Your task to perform on an android device: Check the weather Image 0: 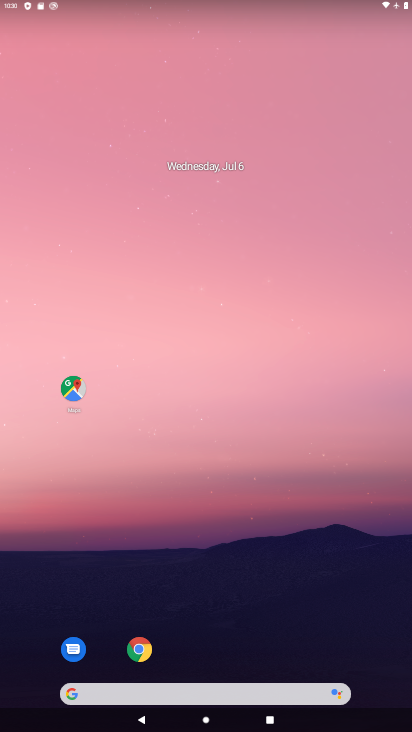
Step 0: drag from (90, 270) to (391, 251)
Your task to perform on an android device: Check the weather Image 1: 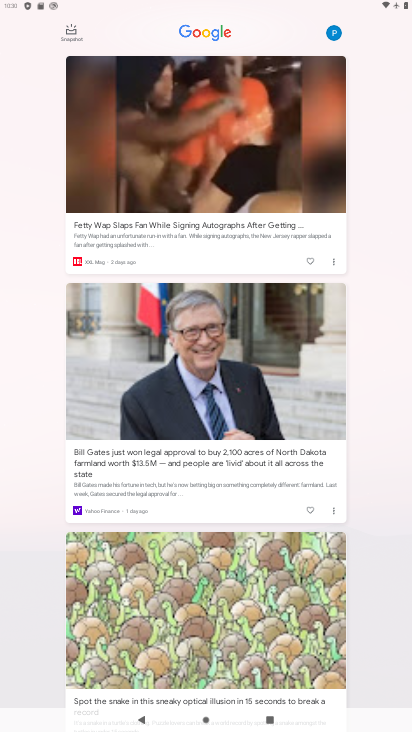
Step 1: task complete